Your task to perform on an android device: Open network settings Image 0: 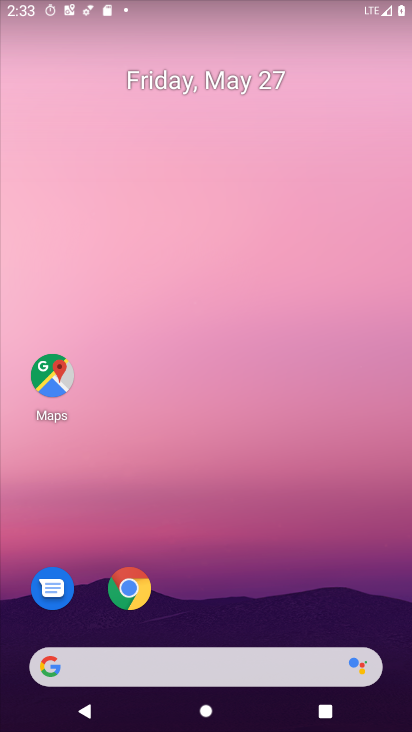
Step 0: drag from (192, 102) to (192, 46)
Your task to perform on an android device: Open network settings Image 1: 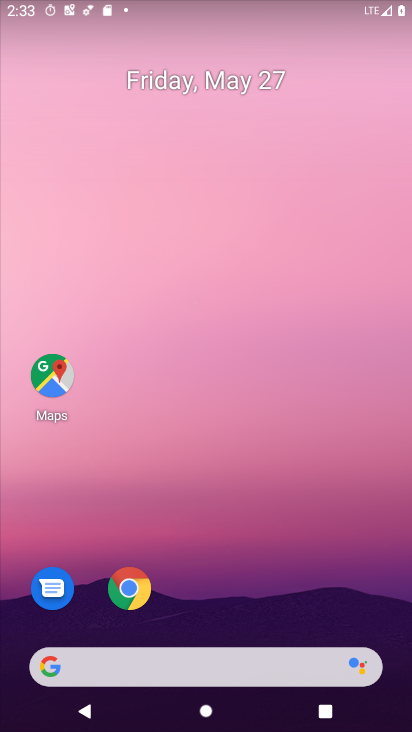
Step 1: drag from (210, 523) to (277, 21)
Your task to perform on an android device: Open network settings Image 2: 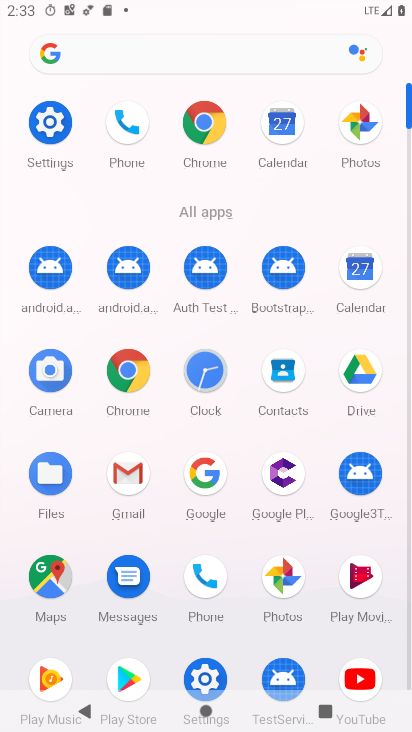
Step 2: click (47, 136)
Your task to perform on an android device: Open network settings Image 3: 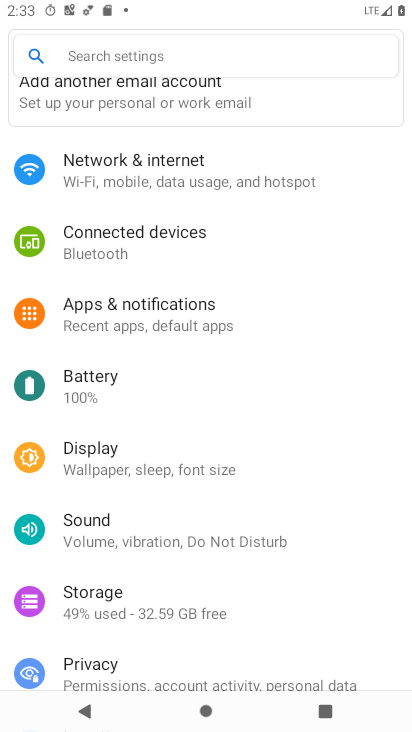
Step 3: click (130, 182)
Your task to perform on an android device: Open network settings Image 4: 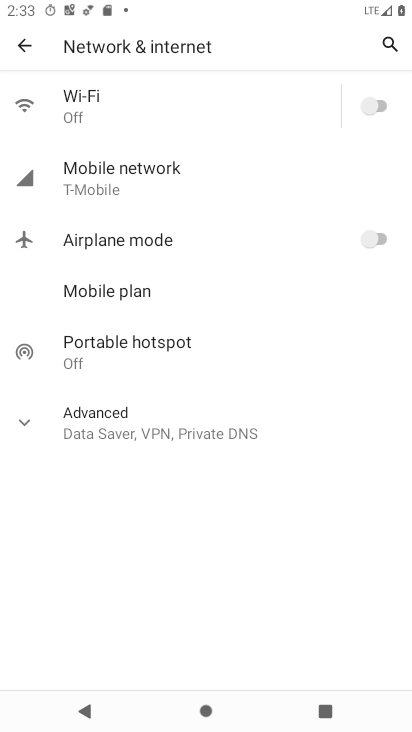
Step 4: click (105, 185)
Your task to perform on an android device: Open network settings Image 5: 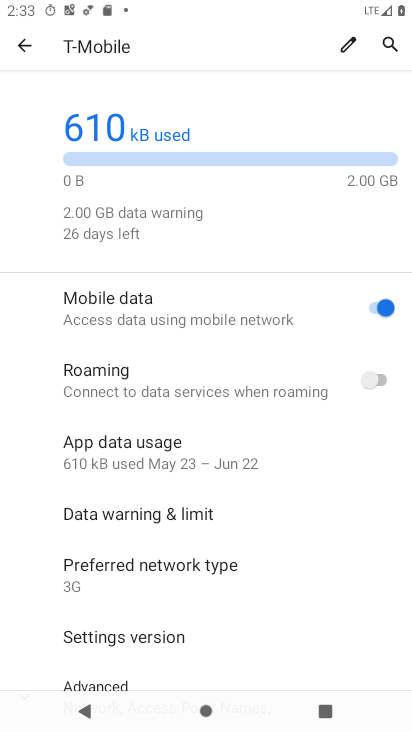
Step 5: task complete